Your task to perform on an android device: manage bookmarks in the chrome app Image 0: 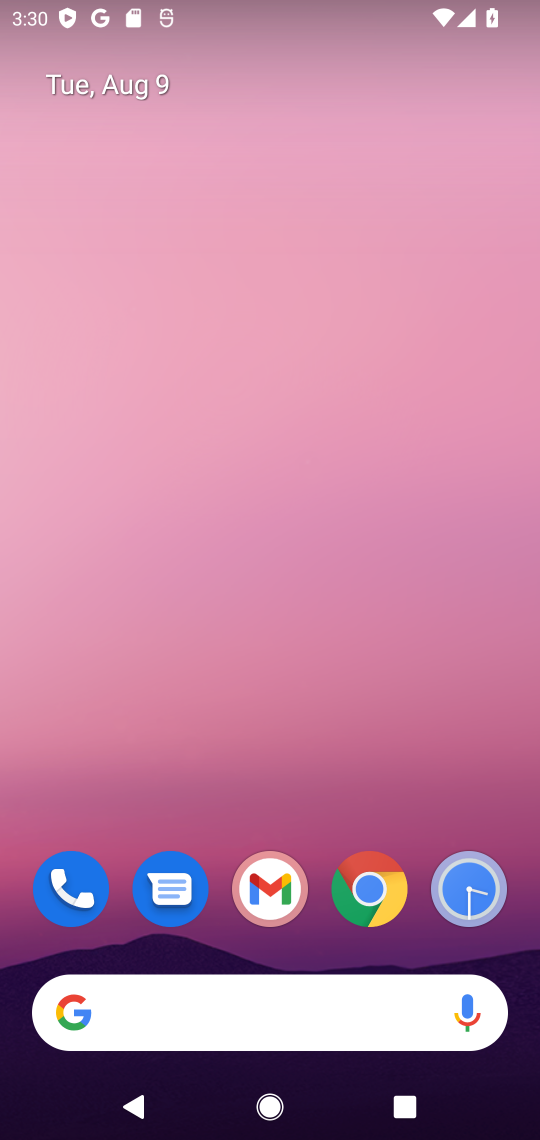
Step 0: click (369, 896)
Your task to perform on an android device: manage bookmarks in the chrome app Image 1: 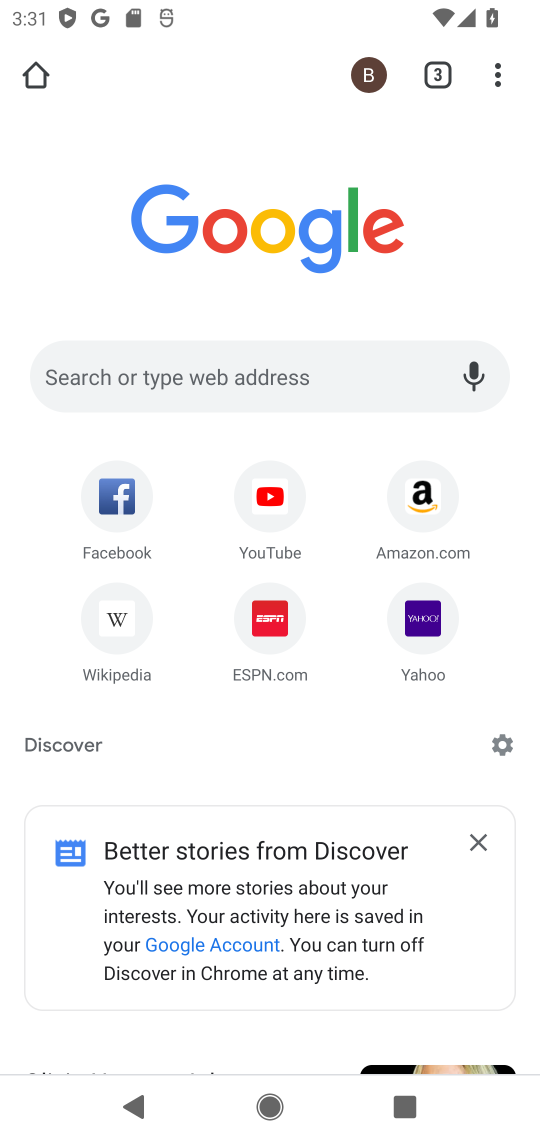
Step 1: click (498, 59)
Your task to perform on an android device: manage bookmarks in the chrome app Image 2: 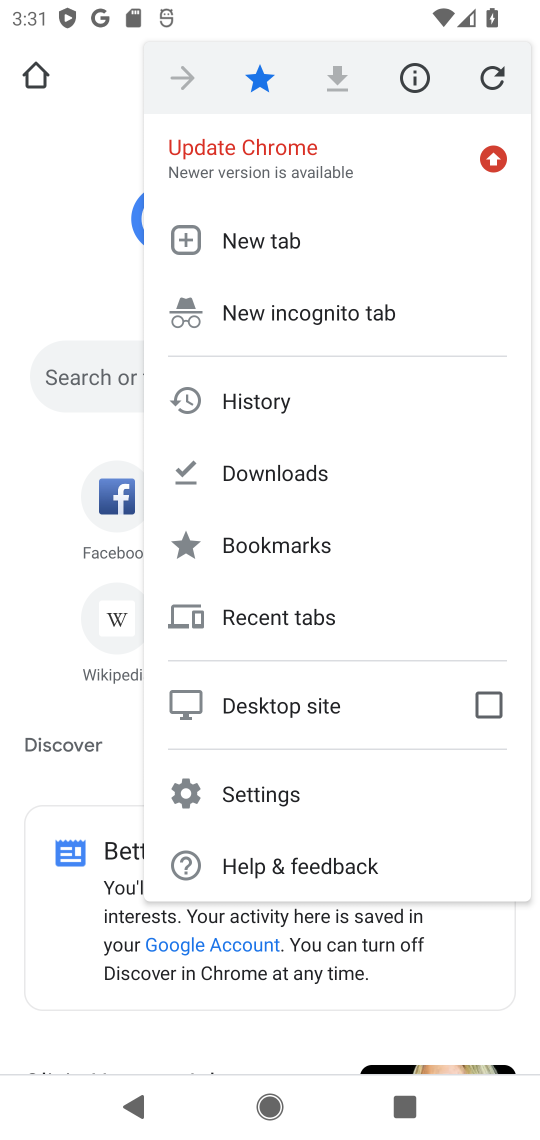
Step 2: click (307, 554)
Your task to perform on an android device: manage bookmarks in the chrome app Image 3: 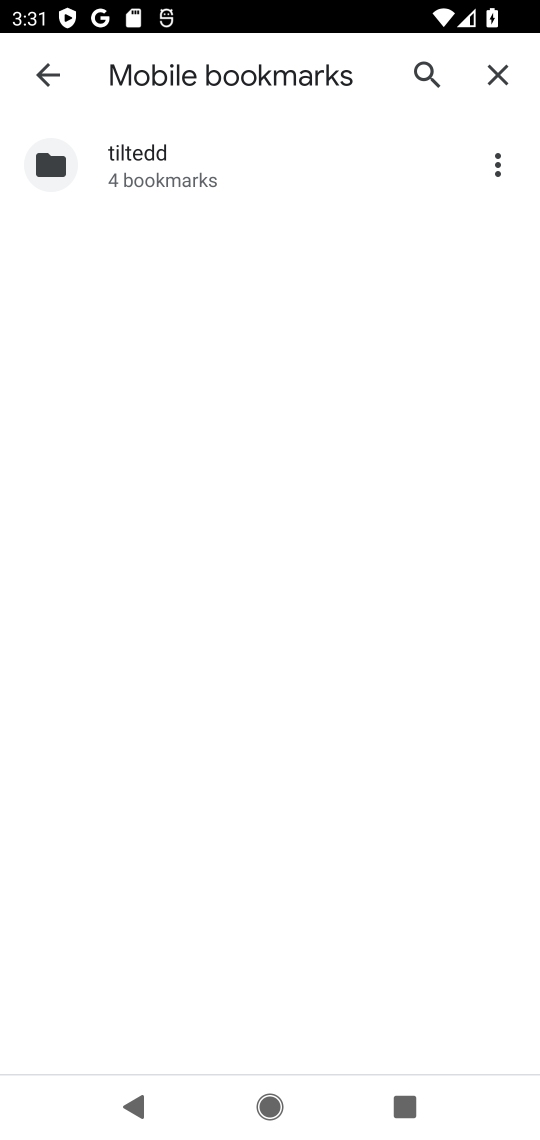
Step 3: click (194, 171)
Your task to perform on an android device: manage bookmarks in the chrome app Image 4: 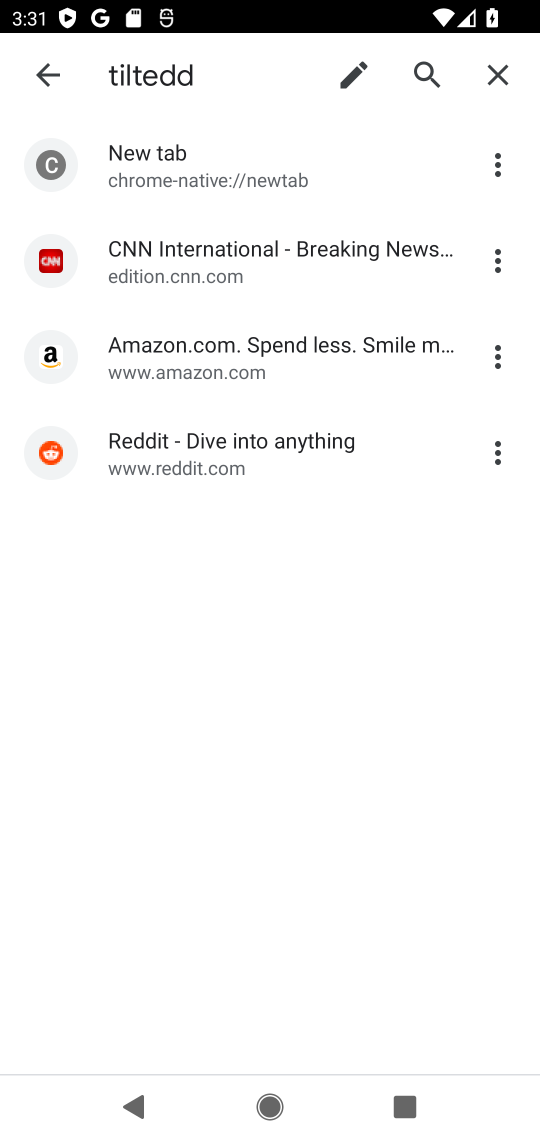
Step 4: click (500, 250)
Your task to perform on an android device: manage bookmarks in the chrome app Image 5: 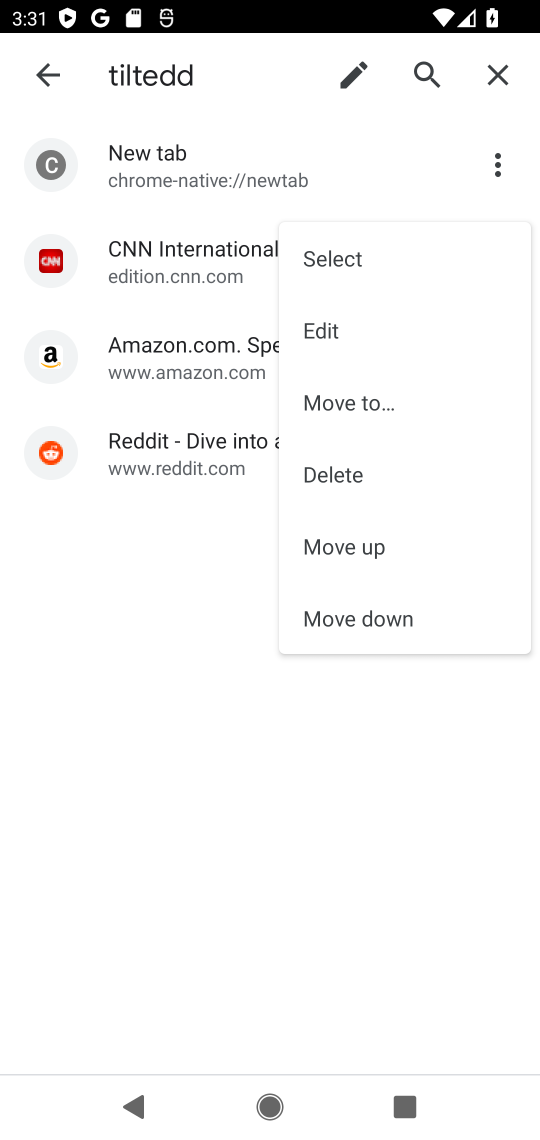
Step 5: click (348, 324)
Your task to perform on an android device: manage bookmarks in the chrome app Image 6: 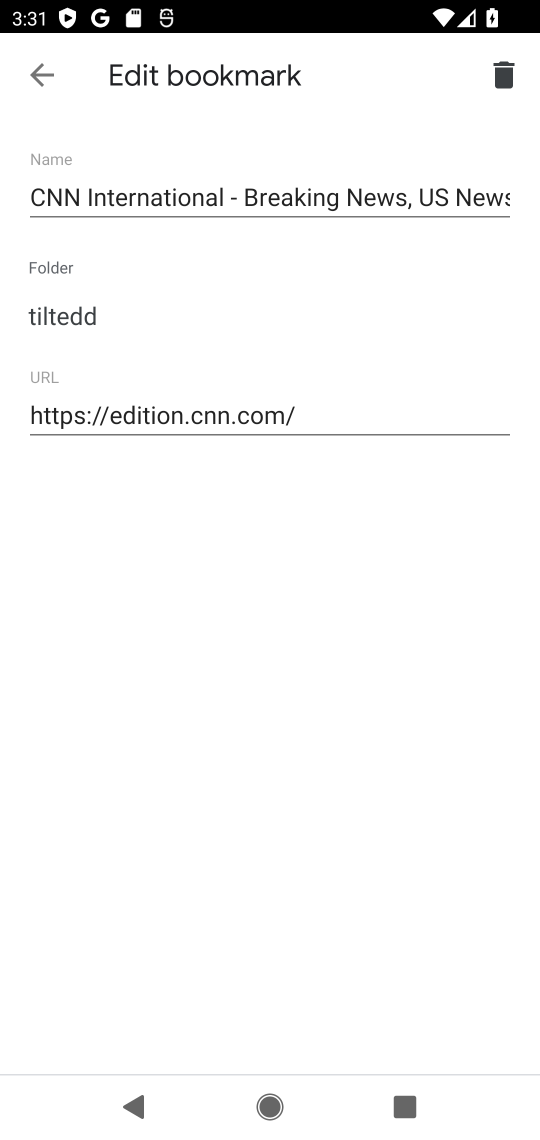
Step 6: click (46, 72)
Your task to perform on an android device: manage bookmarks in the chrome app Image 7: 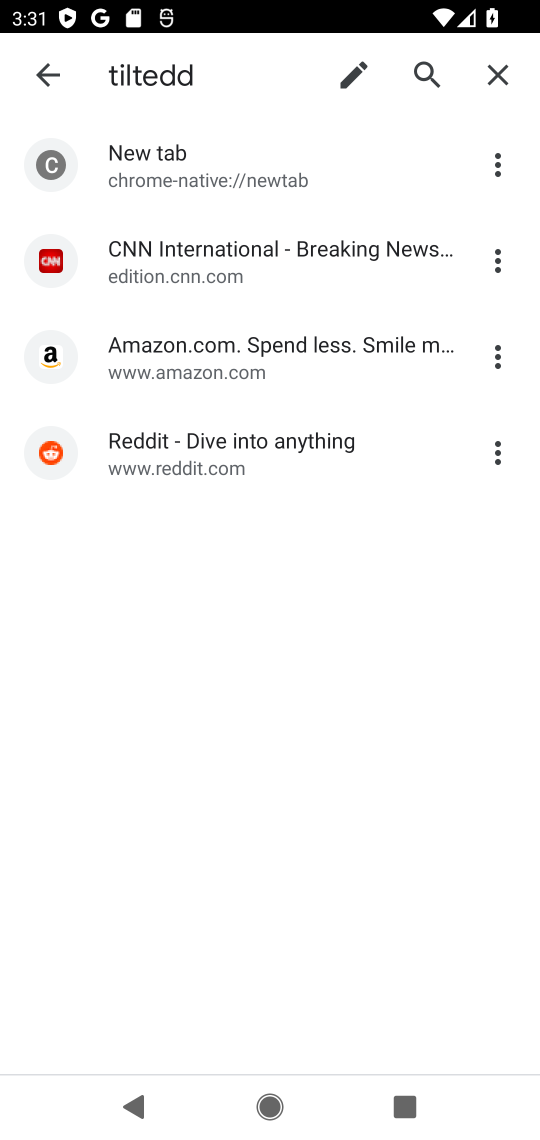
Step 7: task complete